Your task to perform on an android device: Open internet settings Image 0: 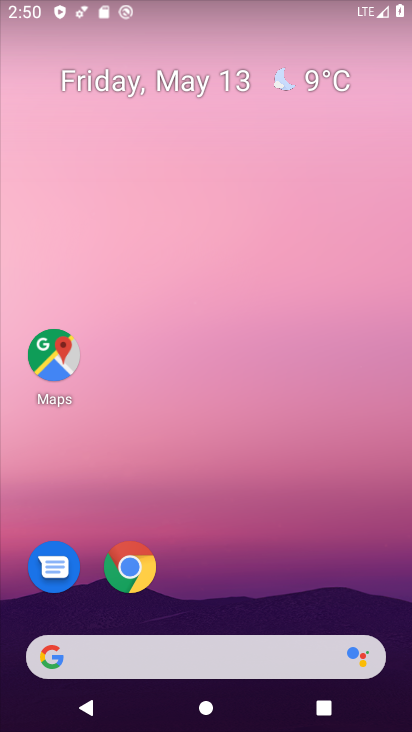
Step 0: drag from (298, 621) to (252, 0)
Your task to perform on an android device: Open internet settings Image 1: 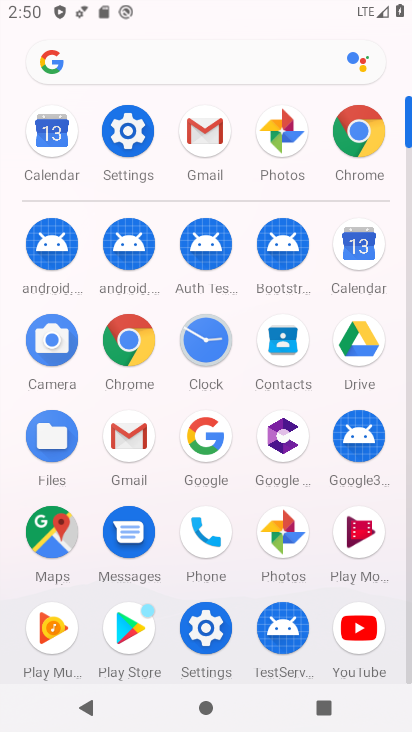
Step 1: click (130, 137)
Your task to perform on an android device: Open internet settings Image 2: 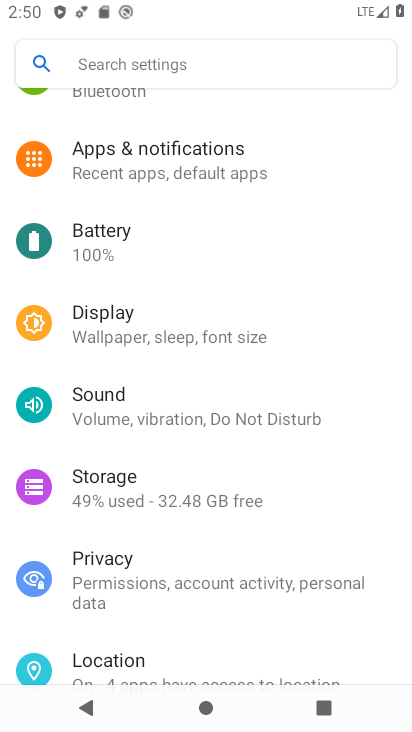
Step 2: drag from (328, 156) to (343, 329)
Your task to perform on an android device: Open internet settings Image 3: 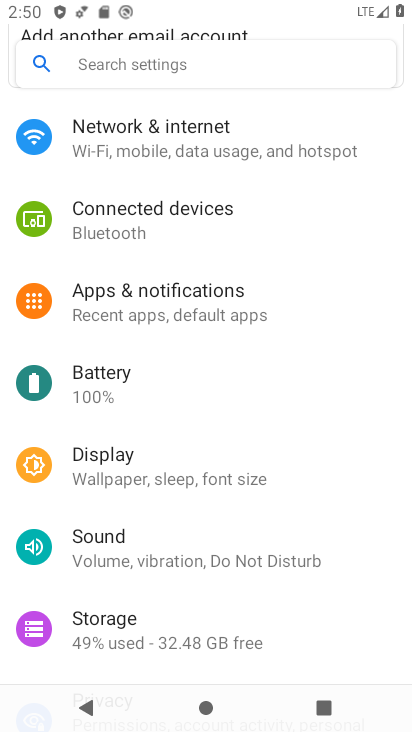
Step 3: click (155, 156)
Your task to perform on an android device: Open internet settings Image 4: 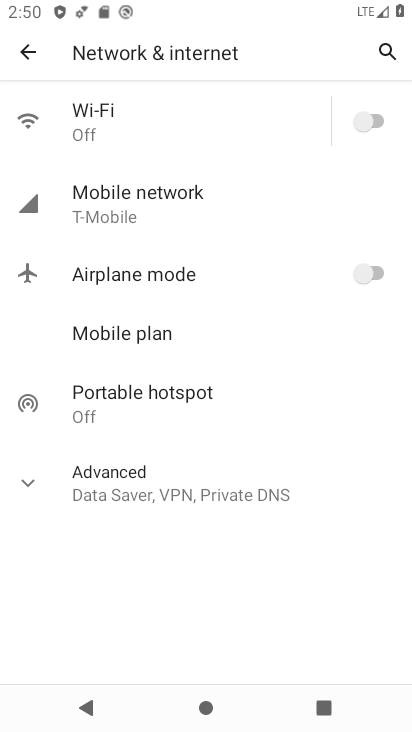
Step 4: task complete